Your task to perform on an android device: change keyboard looks Image 0: 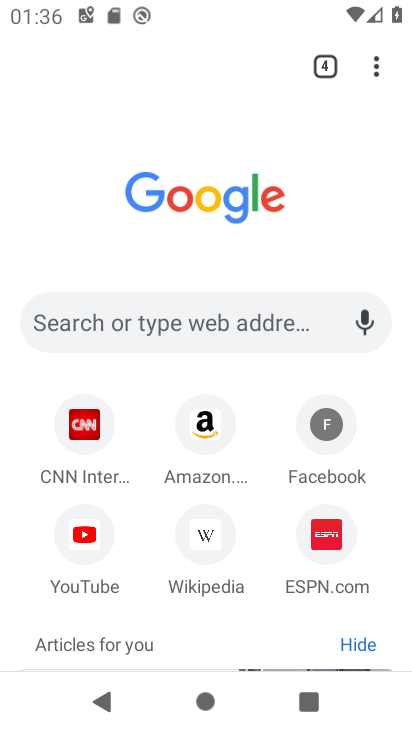
Step 0: press home button
Your task to perform on an android device: change keyboard looks Image 1: 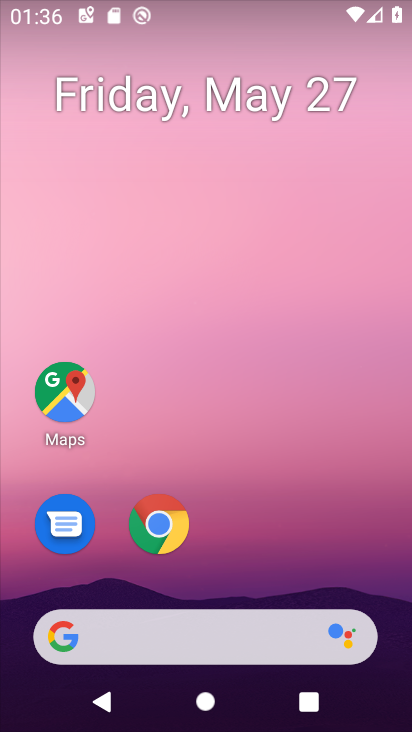
Step 1: drag from (271, 563) to (239, 7)
Your task to perform on an android device: change keyboard looks Image 2: 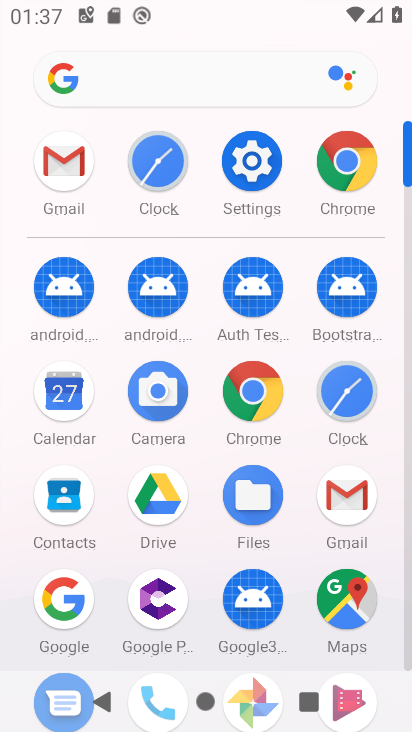
Step 2: click (263, 149)
Your task to perform on an android device: change keyboard looks Image 3: 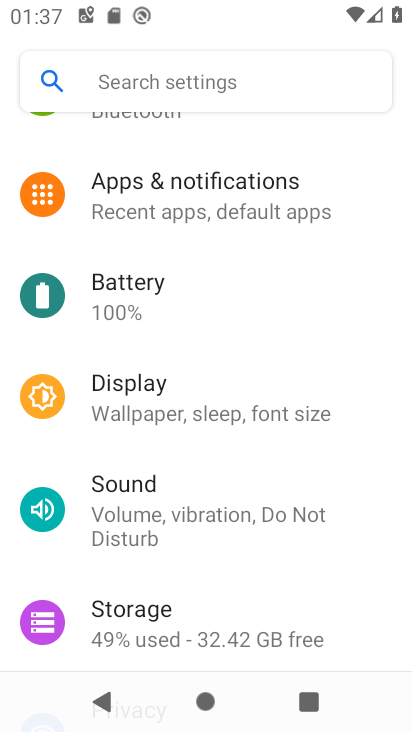
Step 3: drag from (196, 605) to (295, 4)
Your task to perform on an android device: change keyboard looks Image 4: 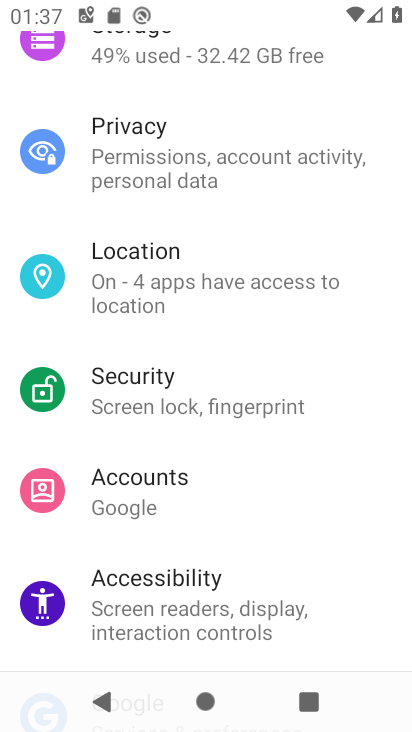
Step 4: drag from (243, 555) to (312, 0)
Your task to perform on an android device: change keyboard looks Image 5: 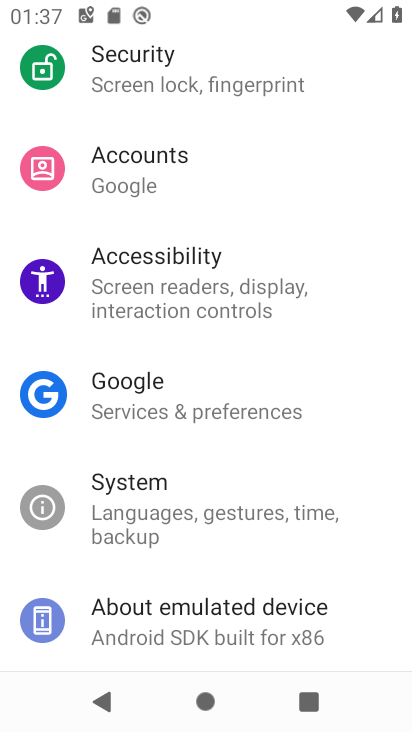
Step 5: click (201, 508)
Your task to perform on an android device: change keyboard looks Image 6: 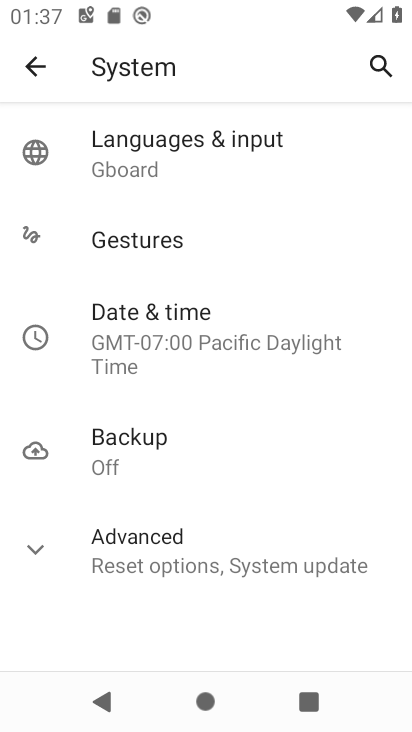
Step 6: click (221, 157)
Your task to perform on an android device: change keyboard looks Image 7: 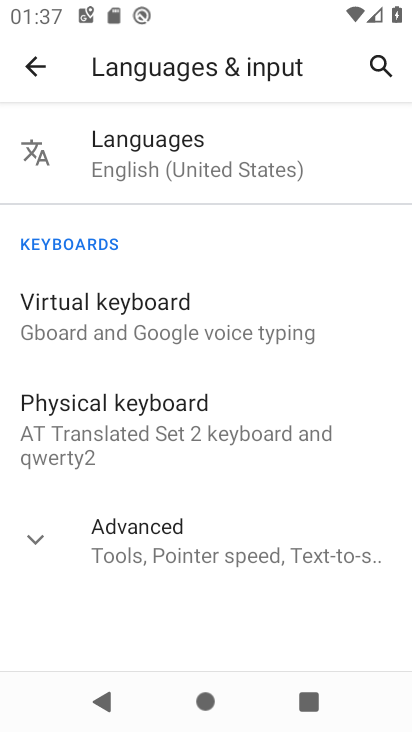
Step 7: click (177, 321)
Your task to perform on an android device: change keyboard looks Image 8: 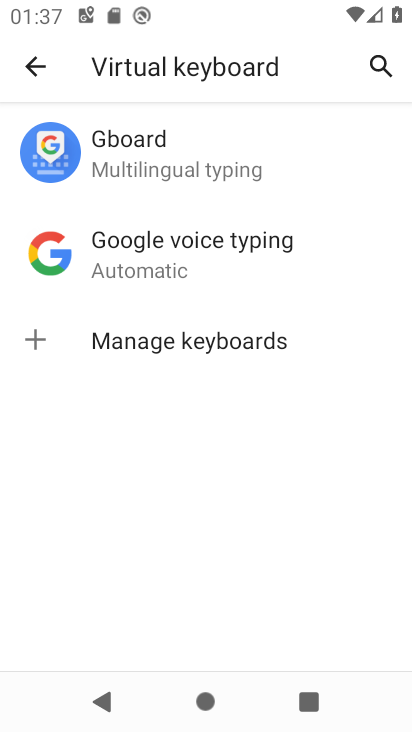
Step 8: click (212, 161)
Your task to perform on an android device: change keyboard looks Image 9: 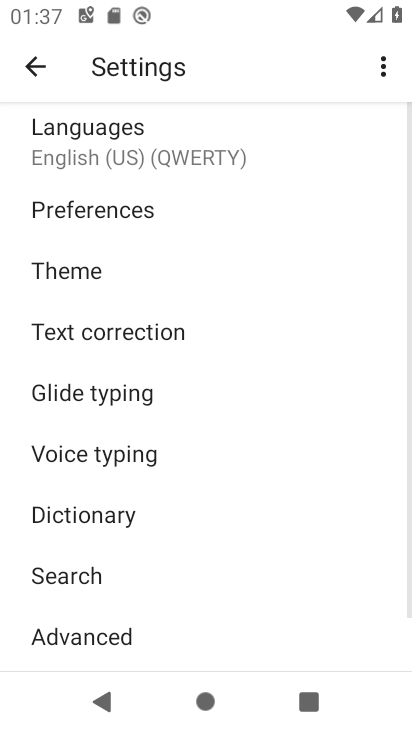
Step 9: click (126, 275)
Your task to perform on an android device: change keyboard looks Image 10: 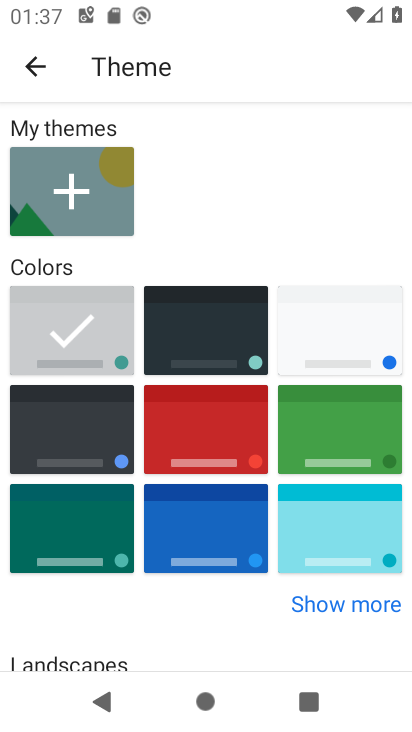
Step 10: click (229, 418)
Your task to perform on an android device: change keyboard looks Image 11: 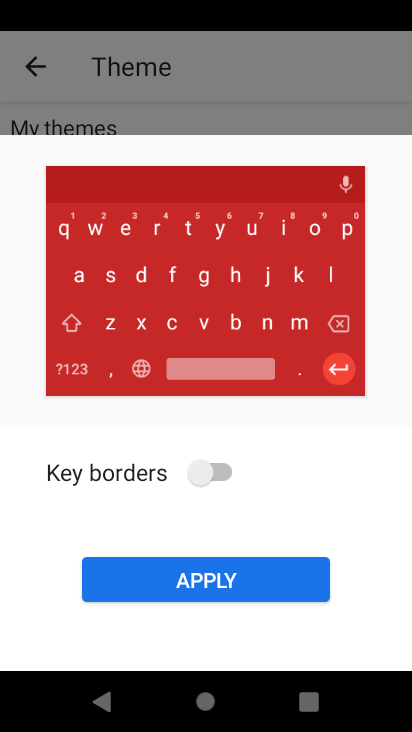
Step 11: click (212, 463)
Your task to perform on an android device: change keyboard looks Image 12: 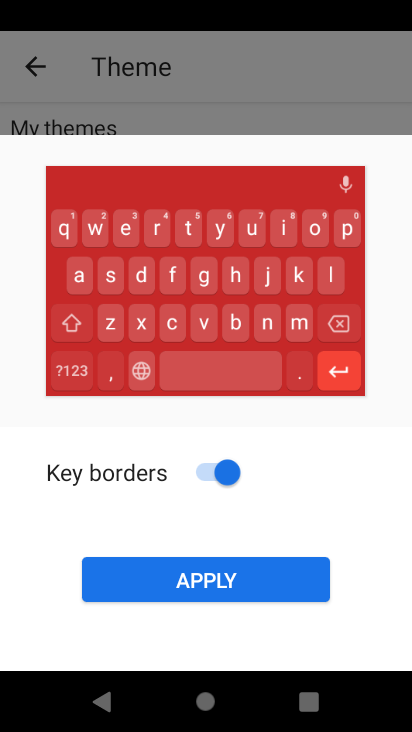
Step 12: click (223, 571)
Your task to perform on an android device: change keyboard looks Image 13: 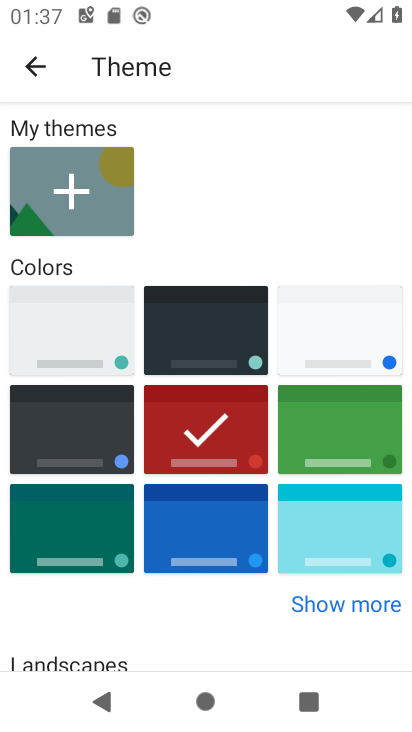
Step 13: task complete